Your task to perform on an android device: turn off notifications in google photos Image 0: 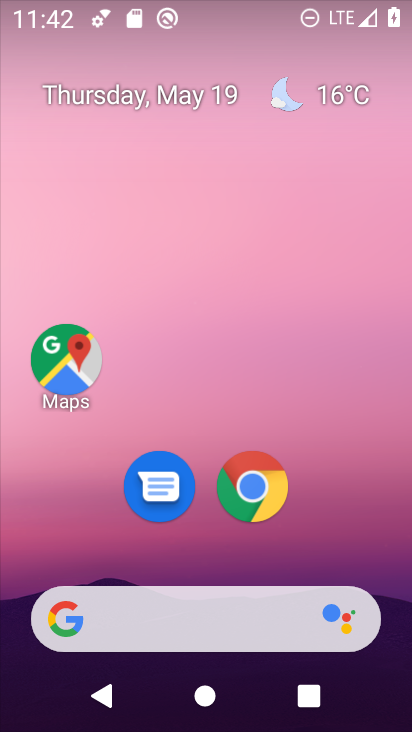
Step 0: drag from (346, 531) to (350, 178)
Your task to perform on an android device: turn off notifications in google photos Image 1: 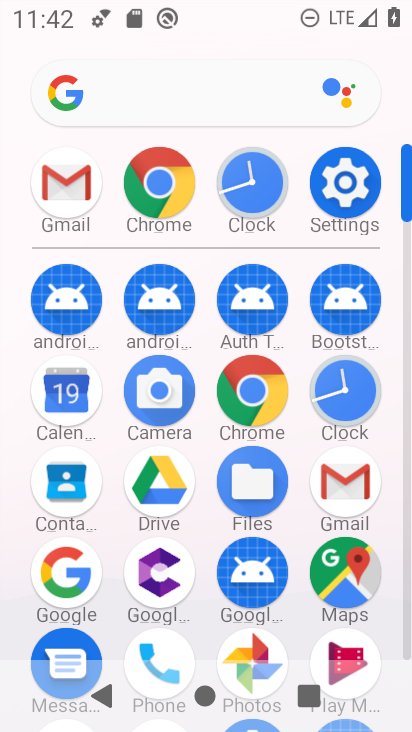
Step 1: click (250, 632)
Your task to perform on an android device: turn off notifications in google photos Image 2: 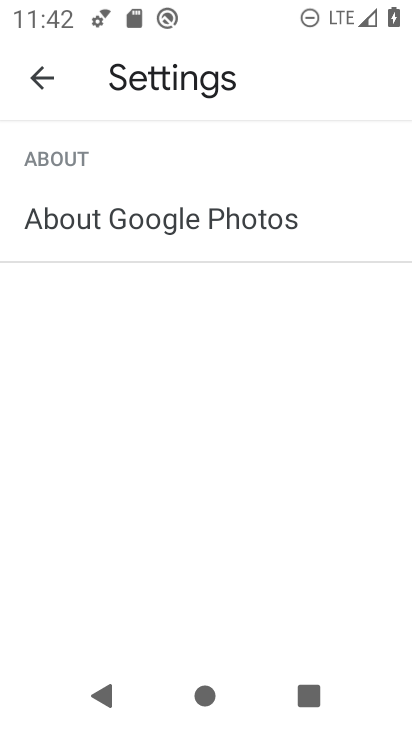
Step 2: click (18, 84)
Your task to perform on an android device: turn off notifications in google photos Image 3: 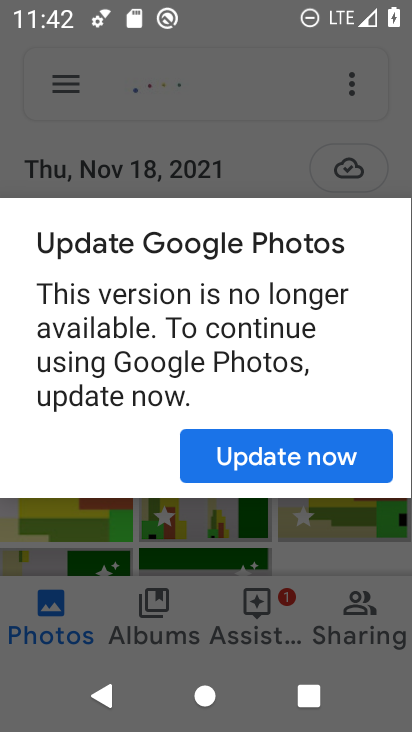
Step 3: press home button
Your task to perform on an android device: turn off notifications in google photos Image 4: 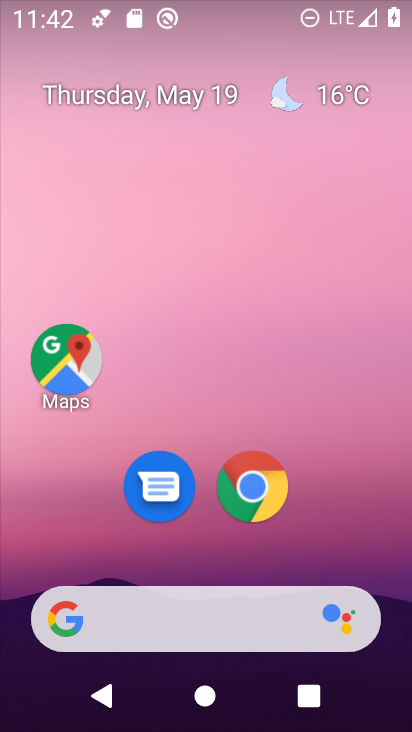
Step 4: drag from (351, 510) to (373, 224)
Your task to perform on an android device: turn off notifications in google photos Image 5: 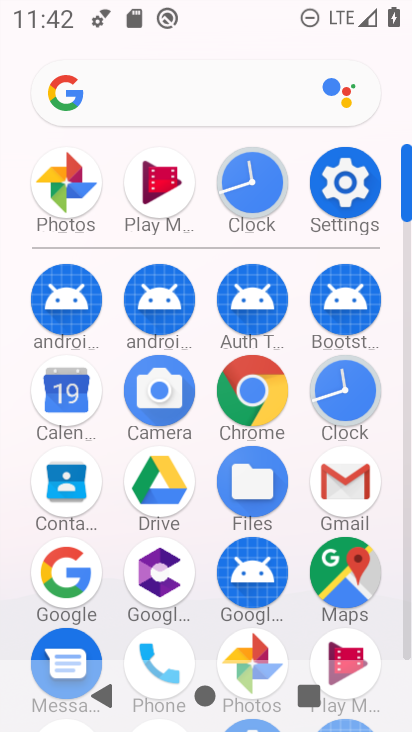
Step 5: click (75, 213)
Your task to perform on an android device: turn off notifications in google photos Image 6: 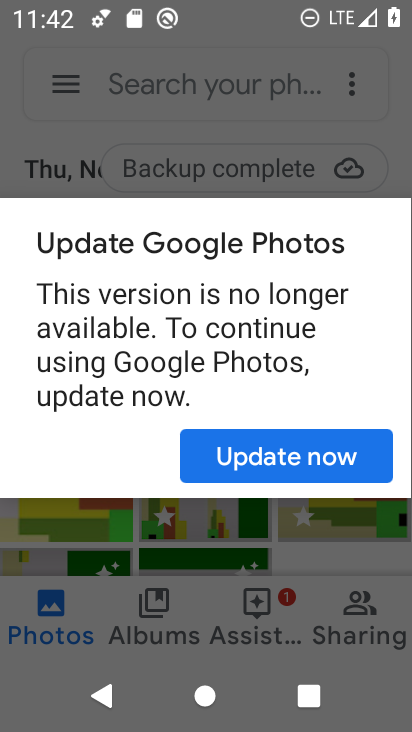
Step 6: click (335, 482)
Your task to perform on an android device: turn off notifications in google photos Image 7: 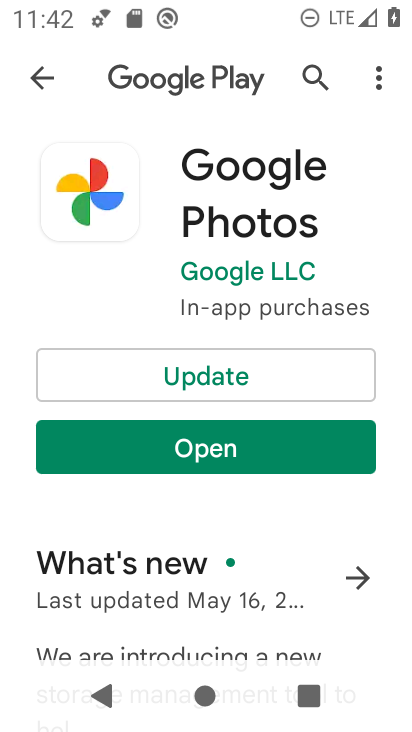
Step 7: click (272, 389)
Your task to perform on an android device: turn off notifications in google photos Image 8: 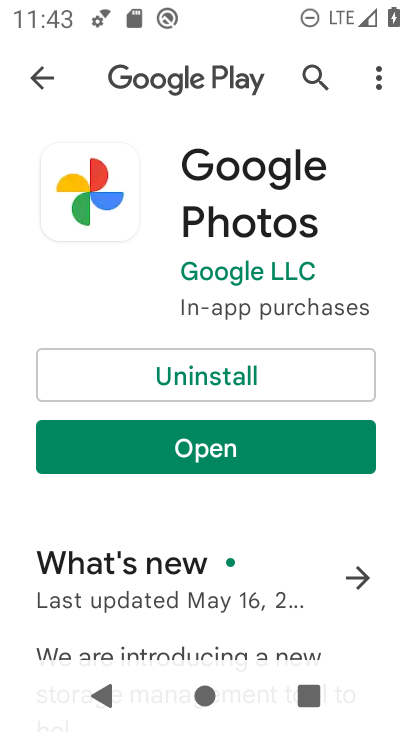
Step 8: click (241, 437)
Your task to perform on an android device: turn off notifications in google photos Image 9: 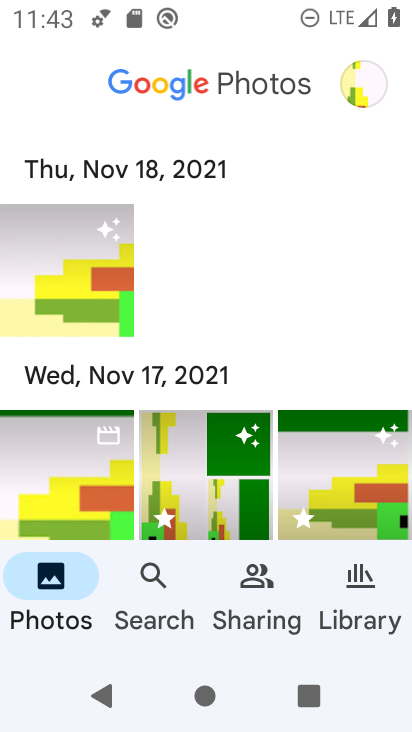
Step 9: click (364, 94)
Your task to perform on an android device: turn off notifications in google photos Image 10: 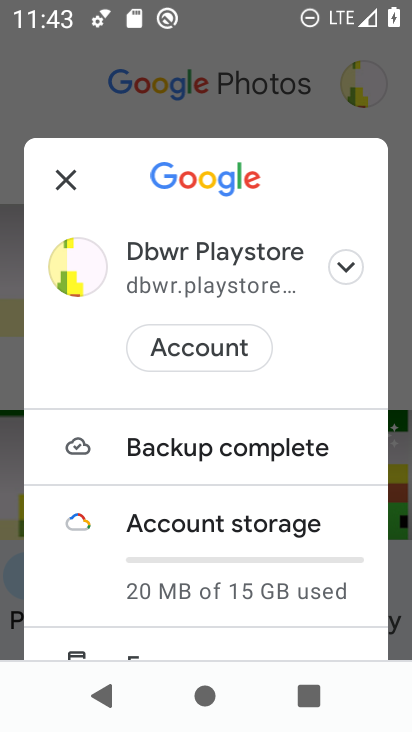
Step 10: drag from (222, 529) to (231, 361)
Your task to perform on an android device: turn off notifications in google photos Image 11: 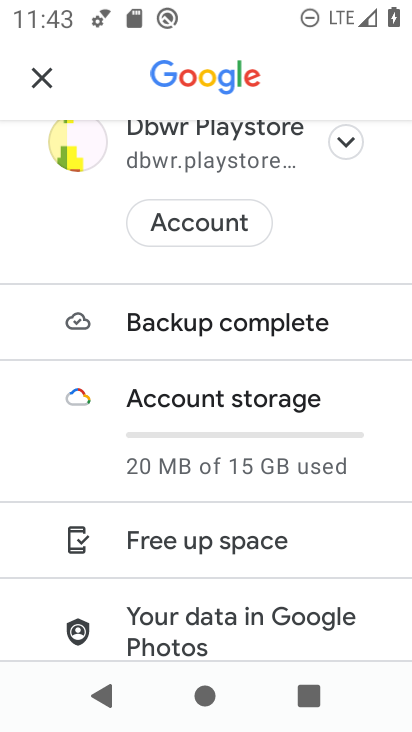
Step 11: drag from (209, 556) to (219, 354)
Your task to perform on an android device: turn off notifications in google photos Image 12: 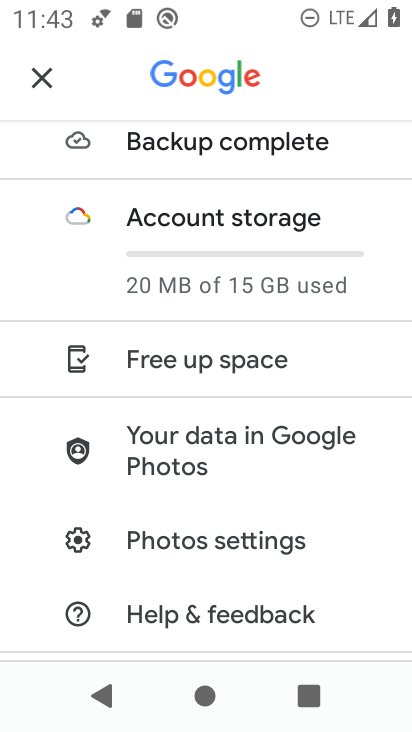
Step 12: click (188, 531)
Your task to perform on an android device: turn off notifications in google photos Image 13: 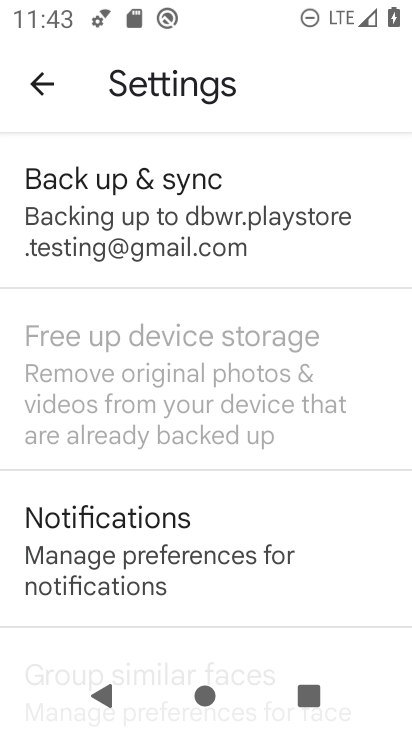
Step 13: click (188, 531)
Your task to perform on an android device: turn off notifications in google photos Image 14: 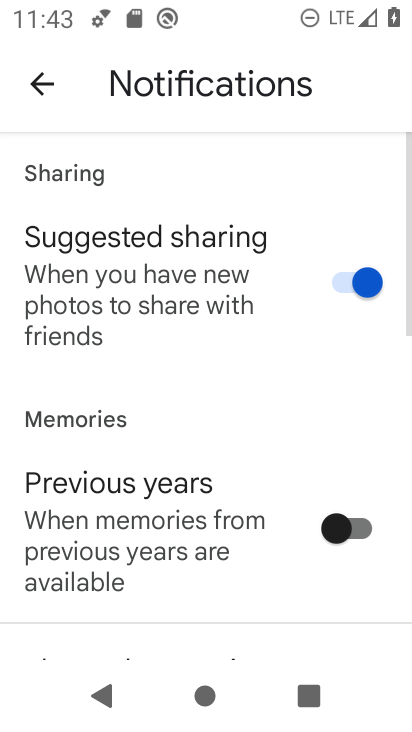
Step 14: click (349, 305)
Your task to perform on an android device: turn off notifications in google photos Image 15: 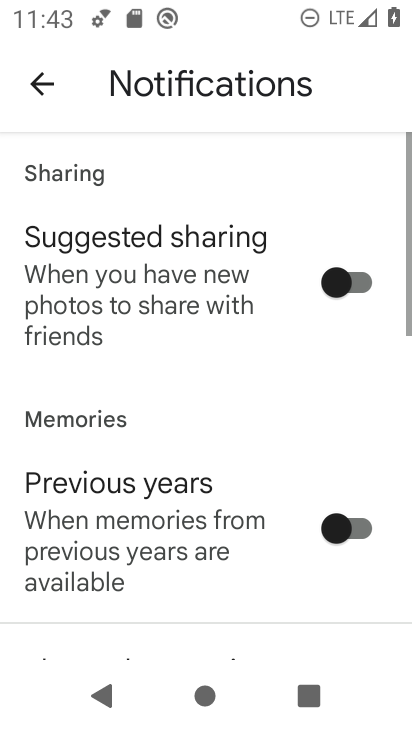
Step 15: task complete